Your task to perform on an android device: Go to Google maps Image 0: 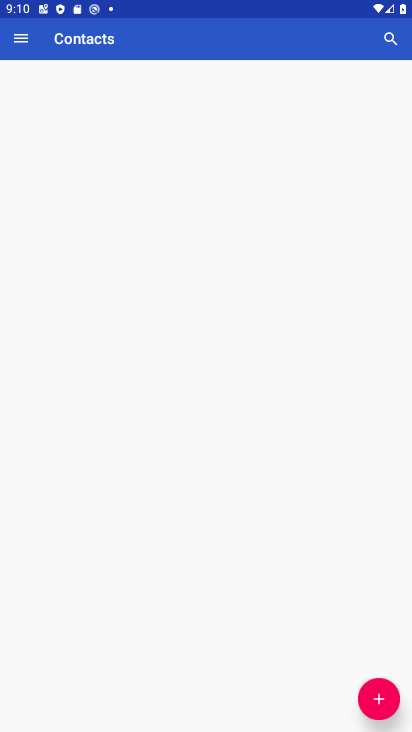
Step 0: press home button
Your task to perform on an android device: Go to Google maps Image 1: 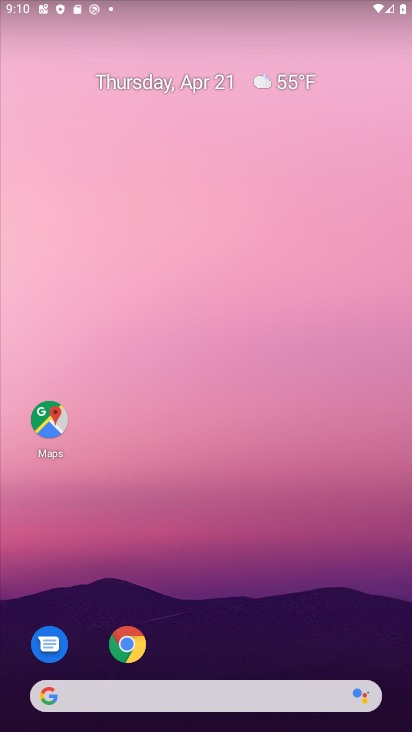
Step 1: drag from (205, 612) to (305, 75)
Your task to perform on an android device: Go to Google maps Image 2: 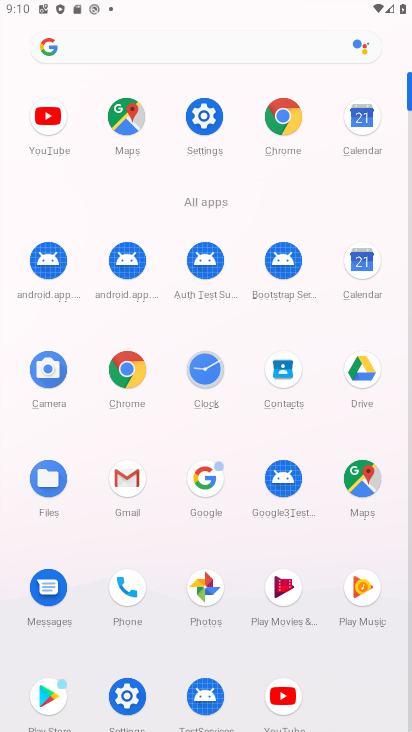
Step 2: click (133, 120)
Your task to perform on an android device: Go to Google maps Image 3: 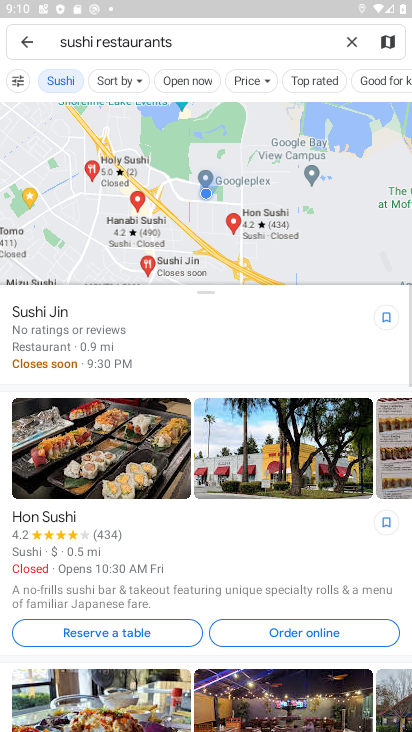
Step 3: task complete